Your task to perform on an android device: turn off javascript in the chrome app Image 0: 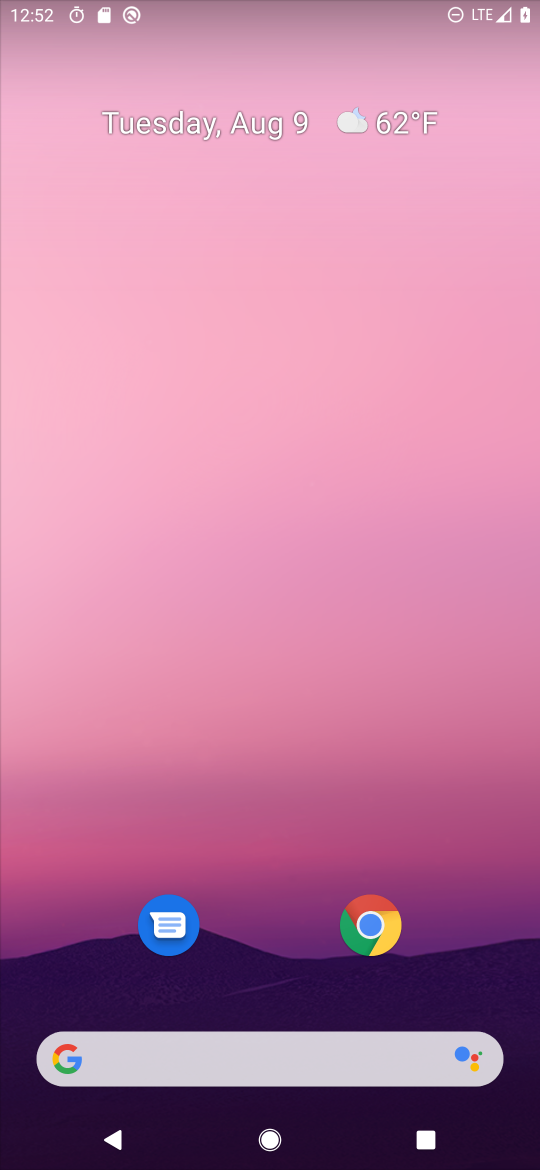
Step 0: drag from (263, 873) to (284, 62)
Your task to perform on an android device: turn off javascript in the chrome app Image 1: 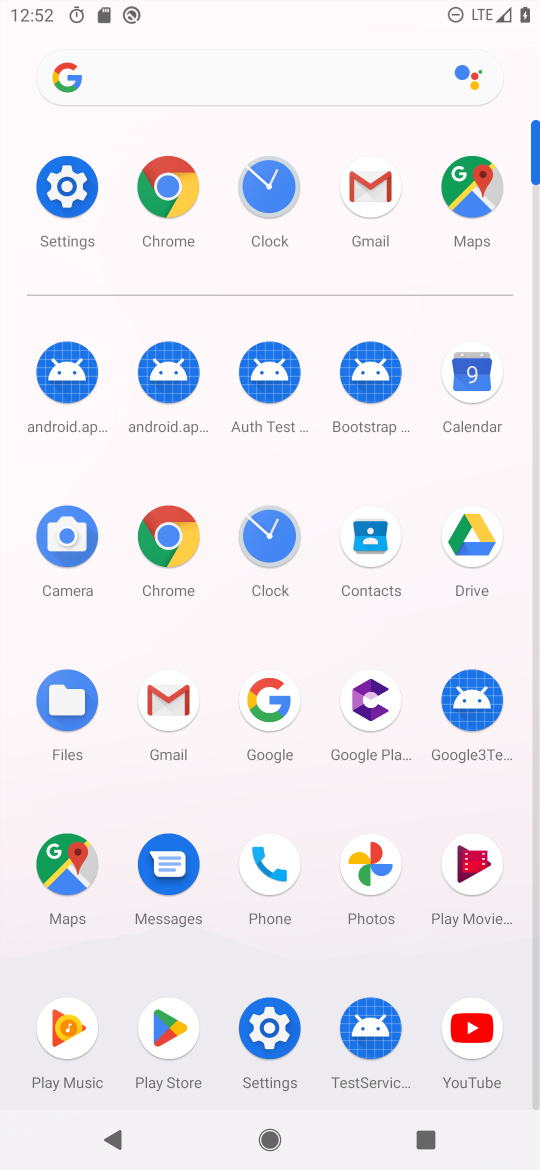
Step 1: click (160, 540)
Your task to perform on an android device: turn off javascript in the chrome app Image 2: 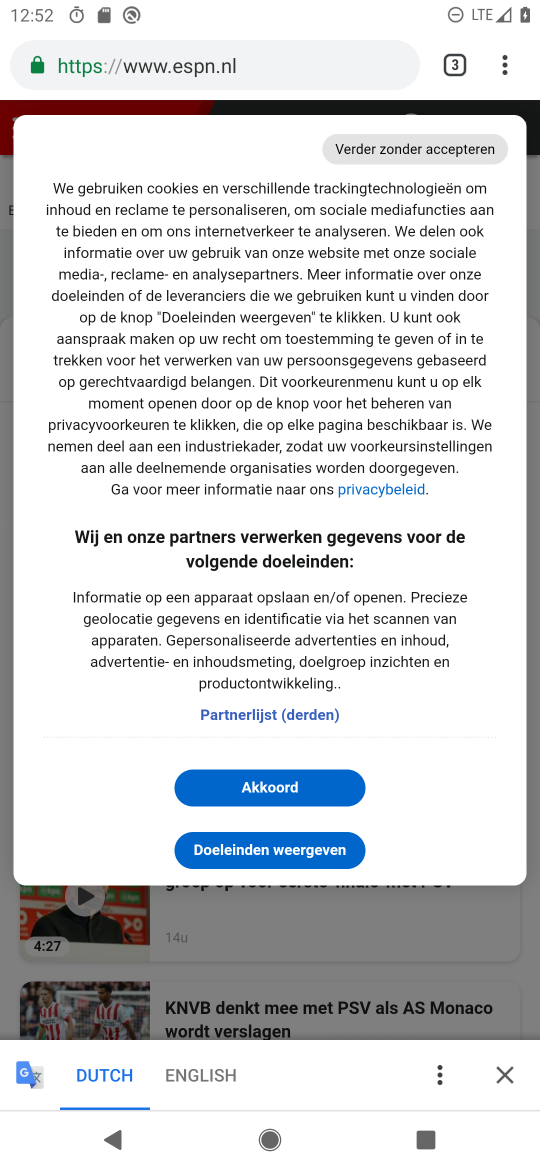
Step 2: drag from (493, 55) to (265, 852)
Your task to perform on an android device: turn off javascript in the chrome app Image 3: 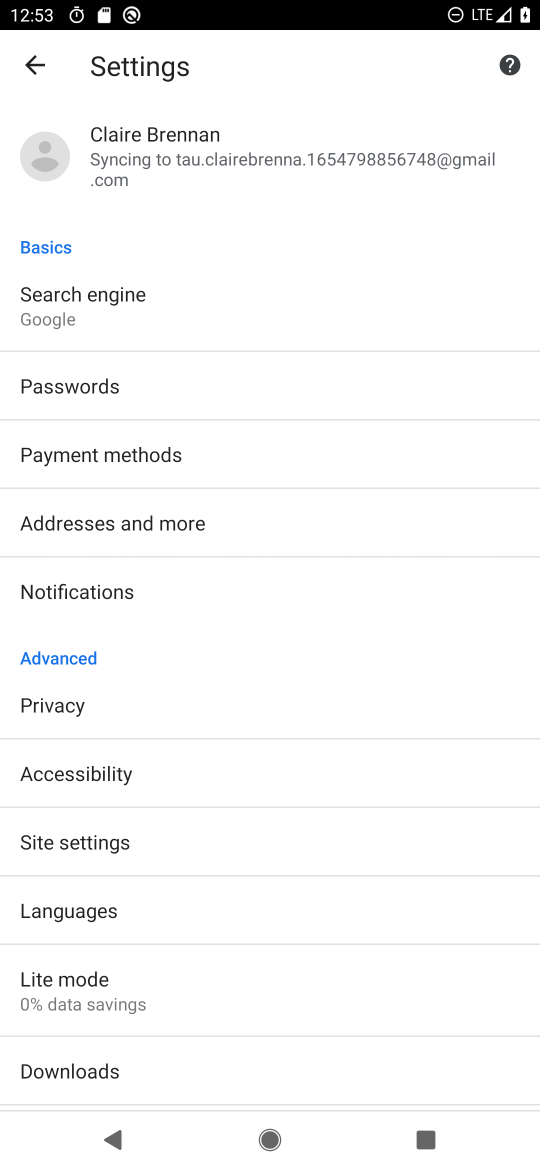
Step 3: click (103, 842)
Your task to perform on an android device: turn off javascript in the chrome app Image 4: 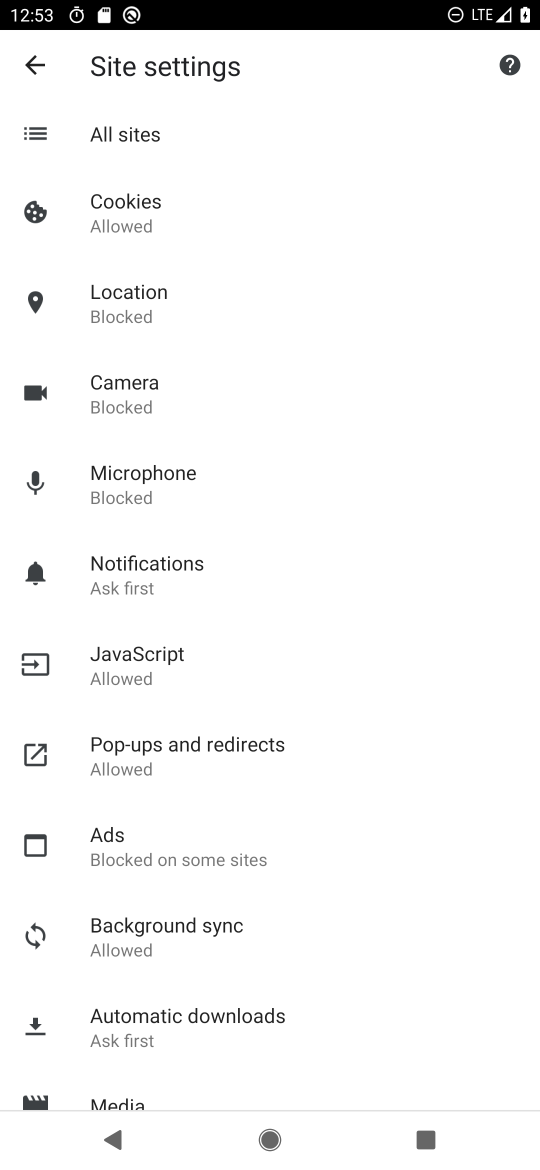
Step 4: click (152, 665)
Your task to perform on an android device: turn off javascript in the chrome app Image 5: 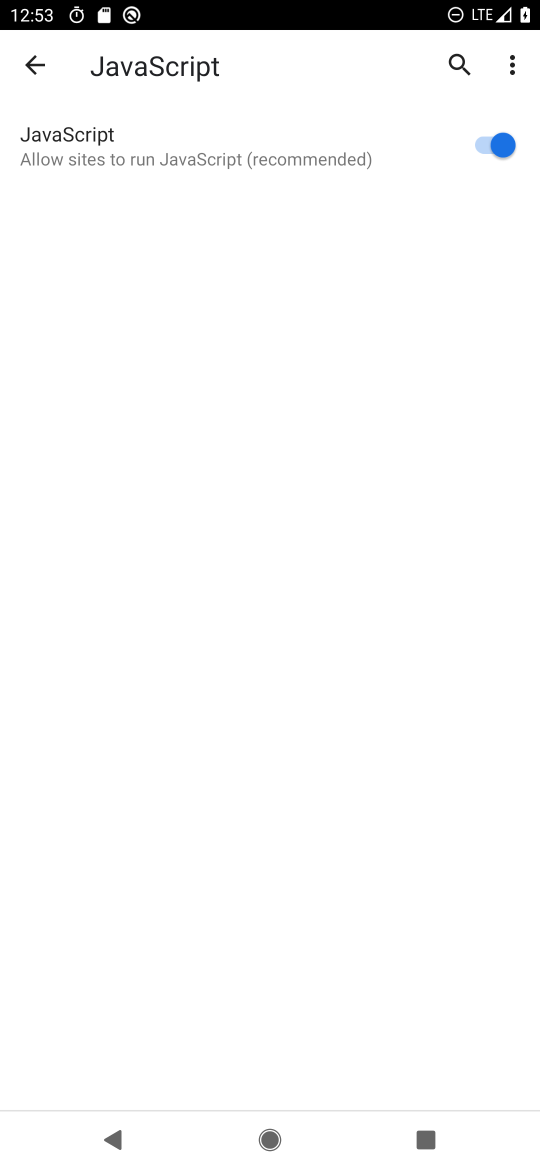
Step 5: click (505, 140)
Your task to perform on an android device: turn off javascript in the chrome app Image 6: 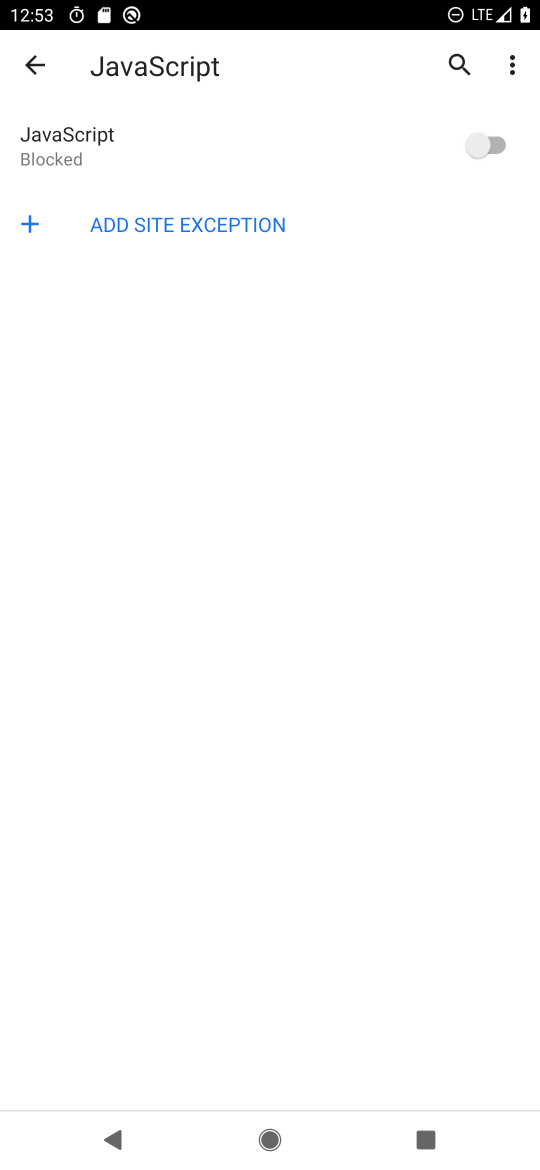
Step 6: task complete